Your task to perform on an android device: turn on sleep mode Image 0: 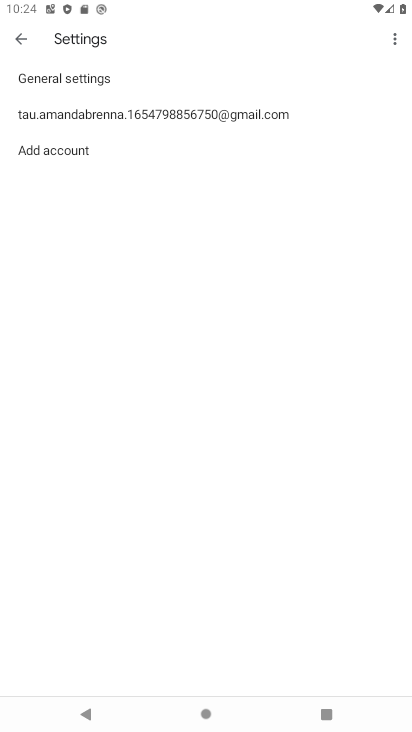
Step 0: press home button
Your task to perform on an android device: turn on sleep mode Image 1: 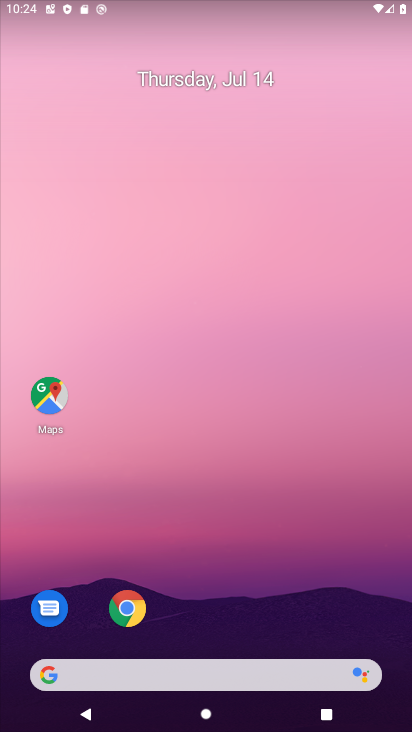
Step 1: drag from (234, 703) to (221, 162)
Your task to perform on an android device: turn on sleep mode Image 2: 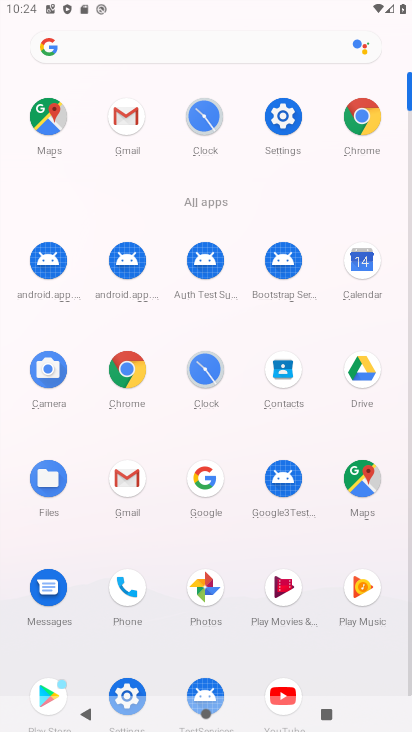
Step 2: click (281, 118)
Your task to perform on an android device: turn on sleep mode Image 3: 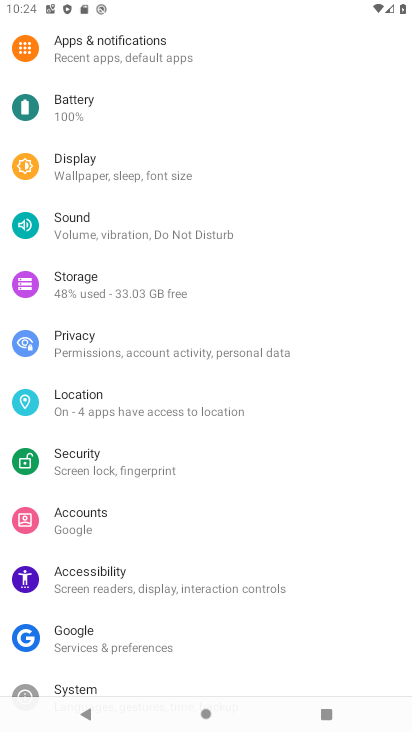
Step 3: click (123, 180)
Your task to perform on an android device: turn on sleep mode Image 4: 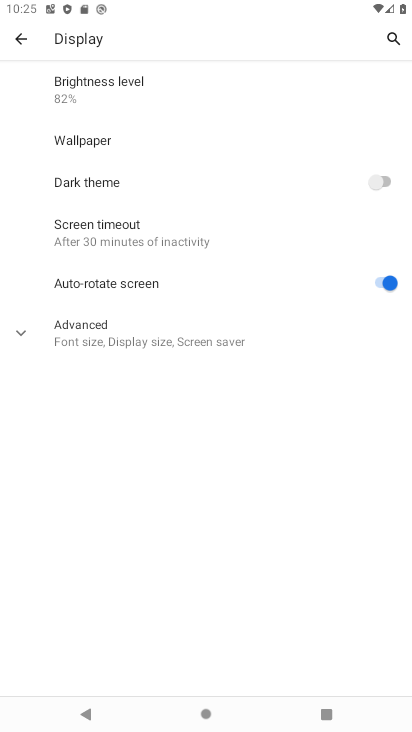
Step 4: task complete